Your task to perform on an android device: Open display settings Image 0: 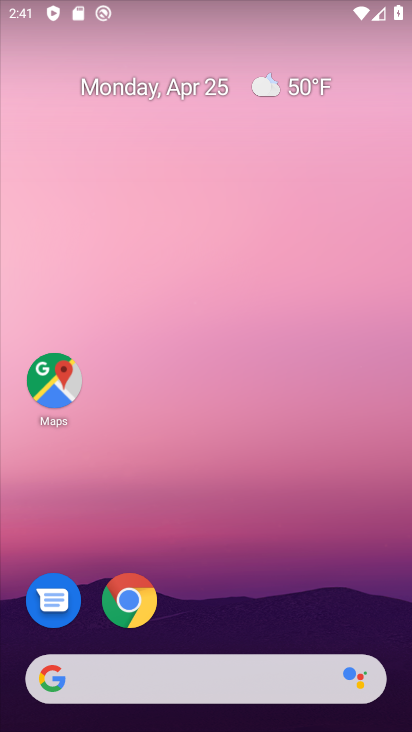
Step 0: drag from (387, 595) to (353, 186)
Your task to perform on an android device: Open display settings Image 1: 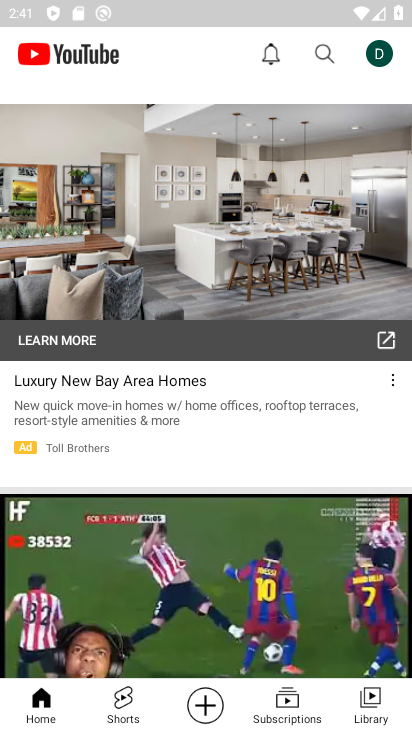
Step 1: press home button
Your task to perform on an android device: Open display settings Image 2: 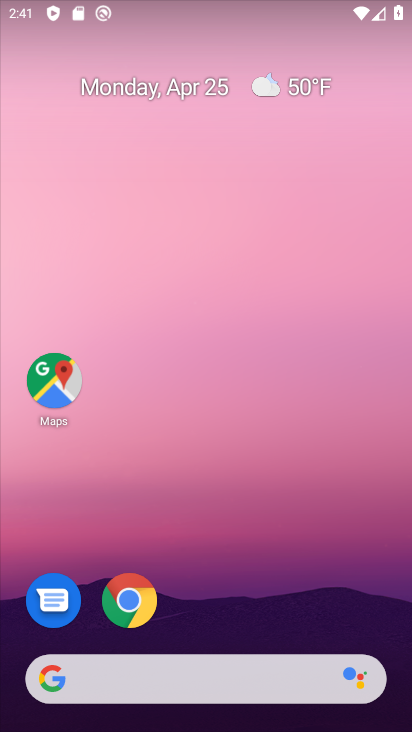
Step 2: drag from (385, 634) to (362, 140)
Your task to perform on an android device: Open display settings Image 3: 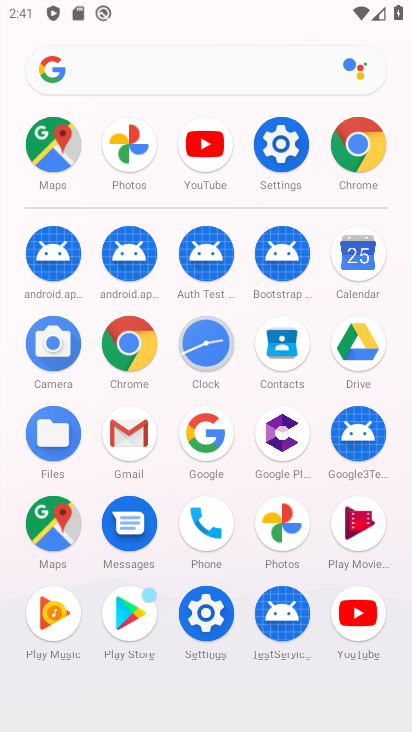
Step 3: click (201, 626)
Your task to perform on an android device: Open display settings Image 4: 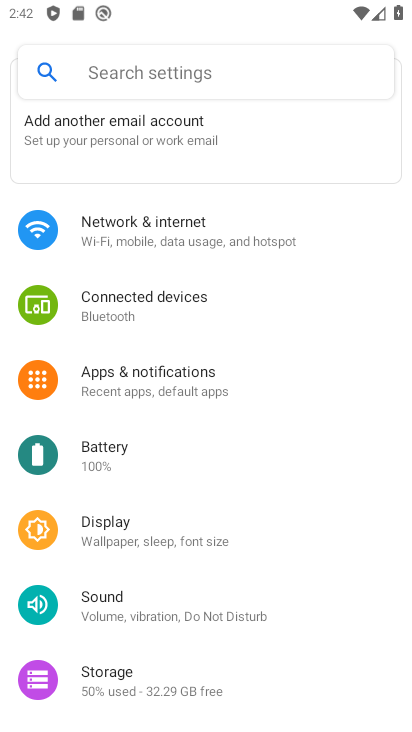
Step 4: click (108, 534)
Your task to perform on an android device: Open display settings Image 5: 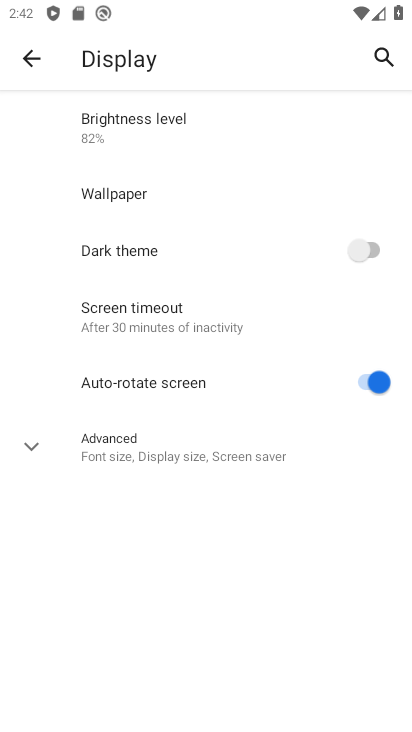
Step 5: task complete